Your task to perform on an android device: Open the web browser Image 0: 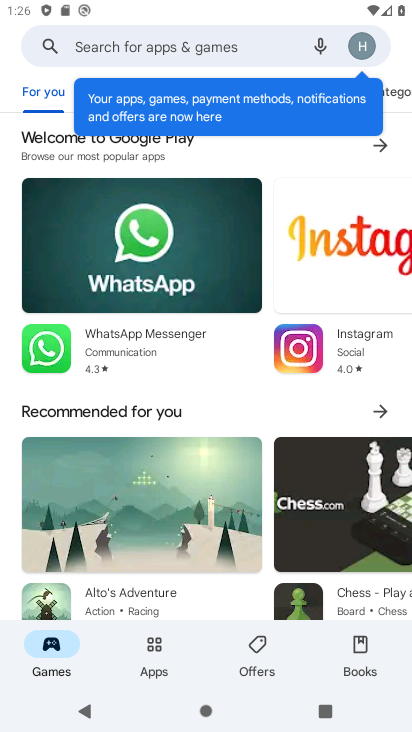
Step 0: press home button
Your task to perform on an android device: Open the web browser Image 1: 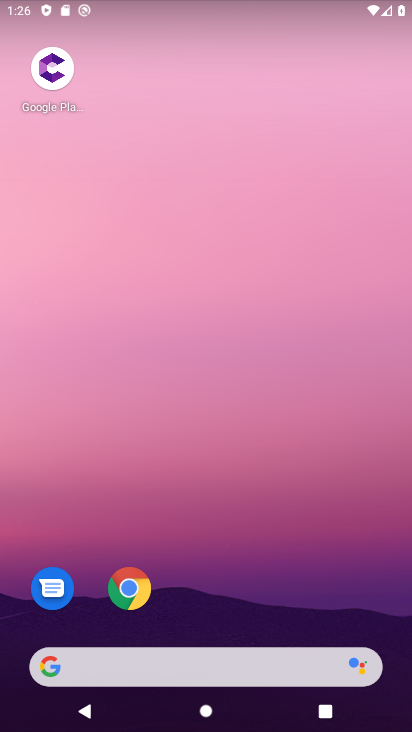
Step 1: drag from (271, 604) to (305, 162)
Your task to perform on an android device: Open the web browser Image 2: 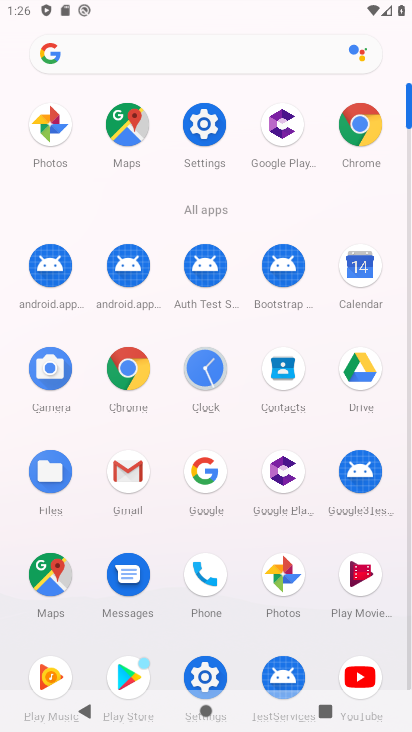
Step 2: click (359, 128)
Your task to perform on an android device: Open the web browser Image 3: 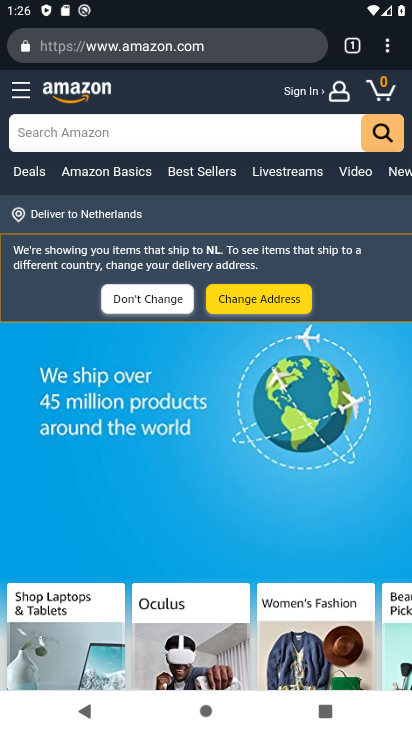
Step 3: task complete